Your task to perform on an android device: Open battery settings Image 0: 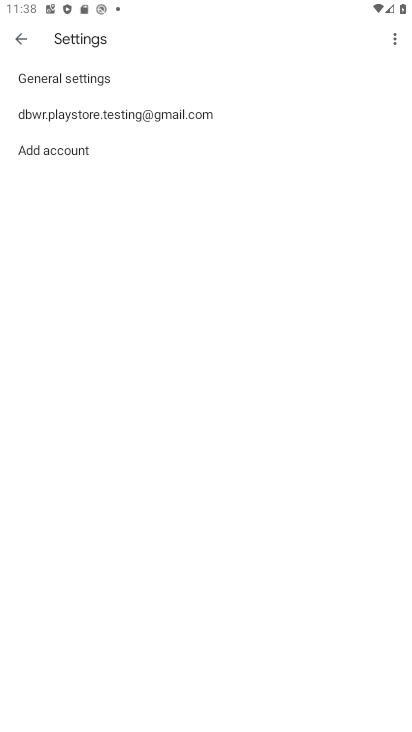
Step 0: press home button
Your task to perform on an android device: Open battery settings Image 1: 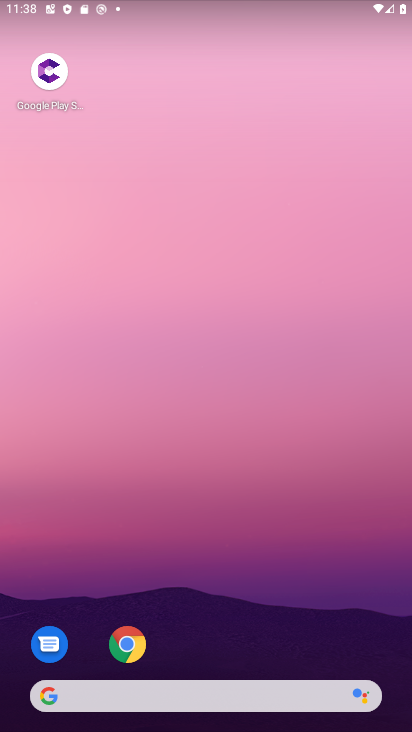
Step 1: drag from (304, 562) to (346, 21)
Your task to perform on an android device: Open battery settings Image 2: 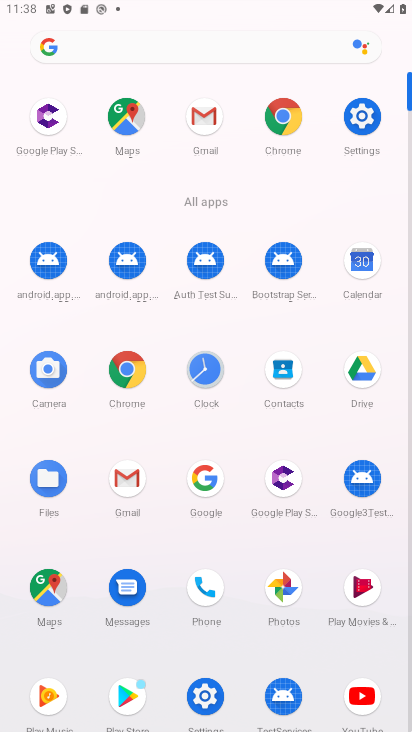
Step 2: click (205, 686)
Your task to perform on an android device: Open battery settings Image 3: 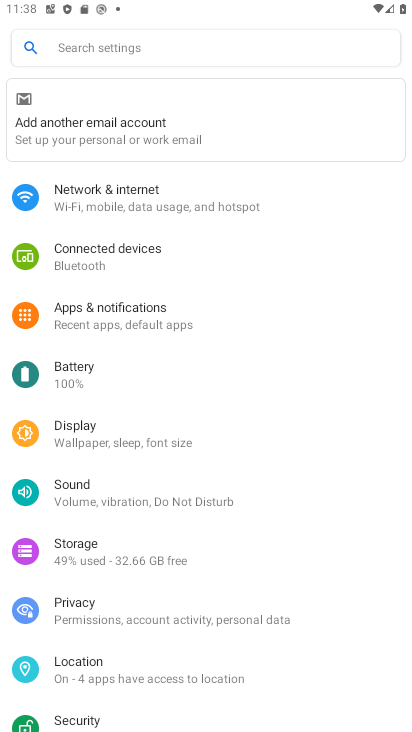
Step 3: drag from (127, 572) to (132, 526)
Your task to perform on an android device: Open battery settings Image 4: 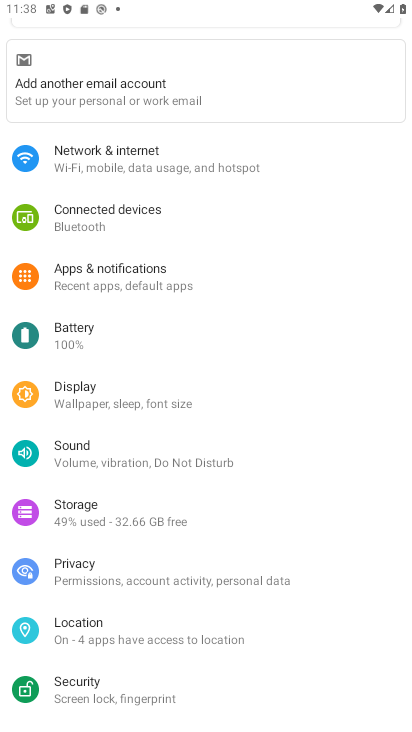
Step 4: click (105, 335)
Your task to perform on an android device: Open battery settings Image 5: 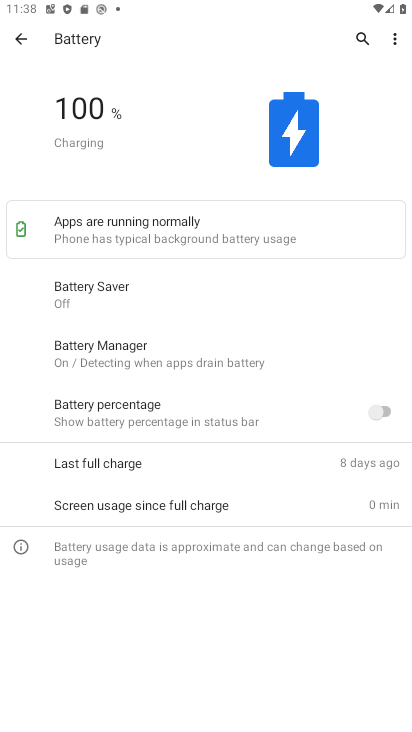
Step 5: task complete